Your task to perform on an android device: Go to notification settings Image 0: 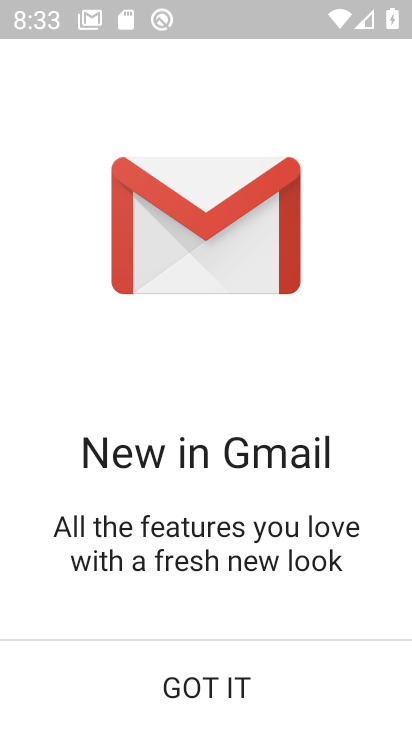
Step 0: press back button
Your task to perform on an android device: Go to notification settings Image 1: 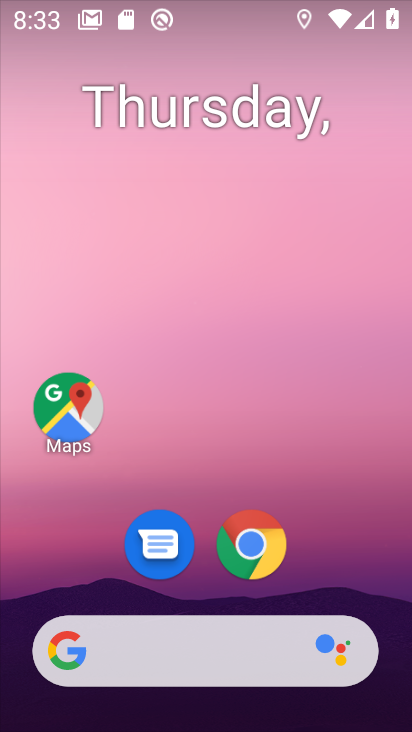
Step 1: drag from (334, 560) to (6, 272)
Your task to perform on an android device: Go to notification settings Image 2: 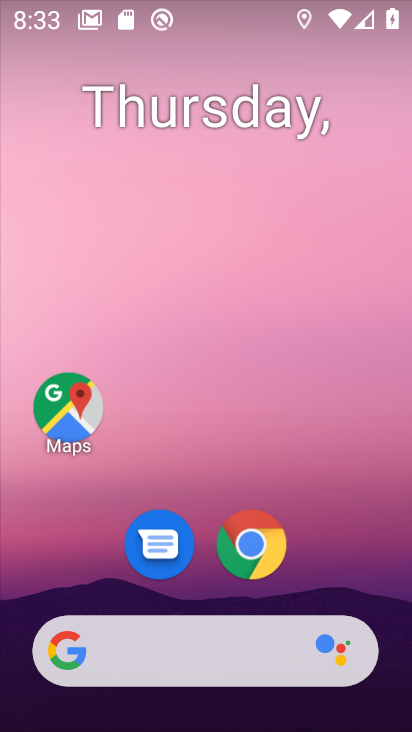
Step 2: drag from (6, 601) to (8, 102)
Your task to perform on an android device: Go to notification settings Image 3: 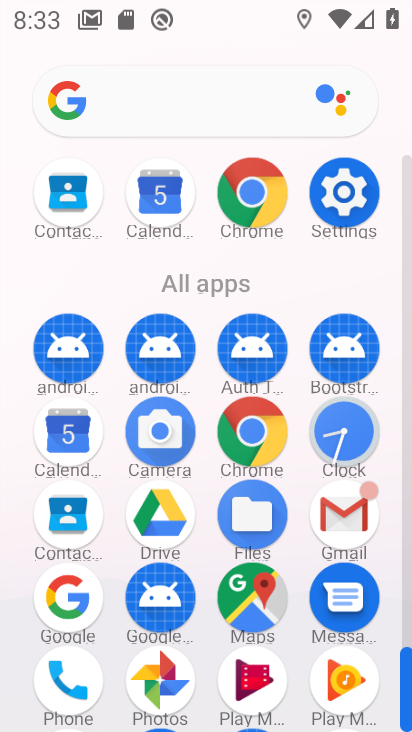
Step 3: drag from (12, 624) to (18, 335)
Your task to perform on an android device: Go to notification settings Image 4: 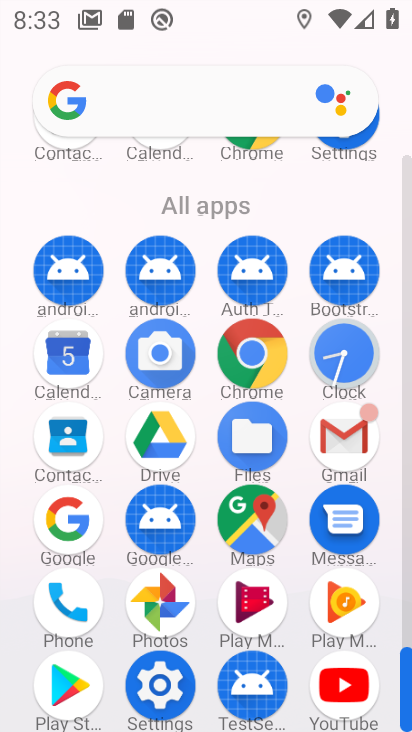
Step 4: click (161, 681)
Your task to perform on an android device: Go to notification settings Image 5: 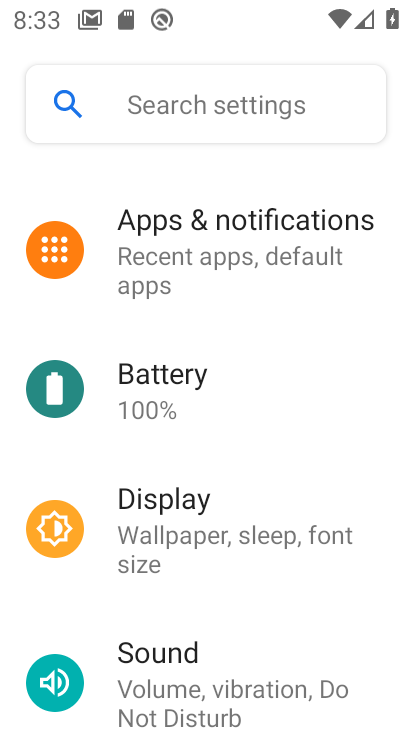
Step 5: click (228, 257)
Your task to perform on an android device: Go to notification settings Image 6: 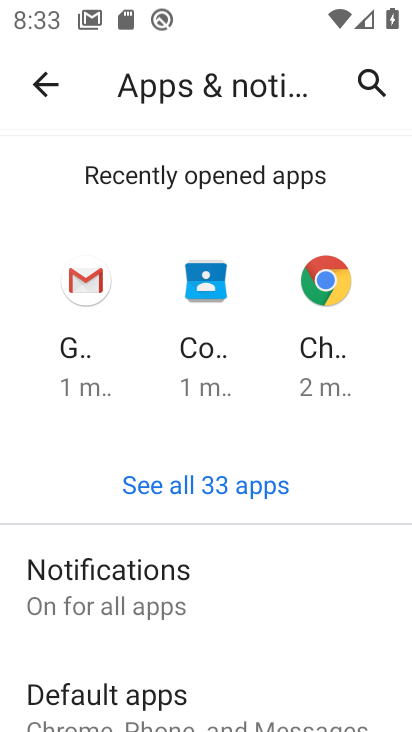
Step 6: click (180, 593)
Your task to perform on an android device: Go to notification settings Image 7: 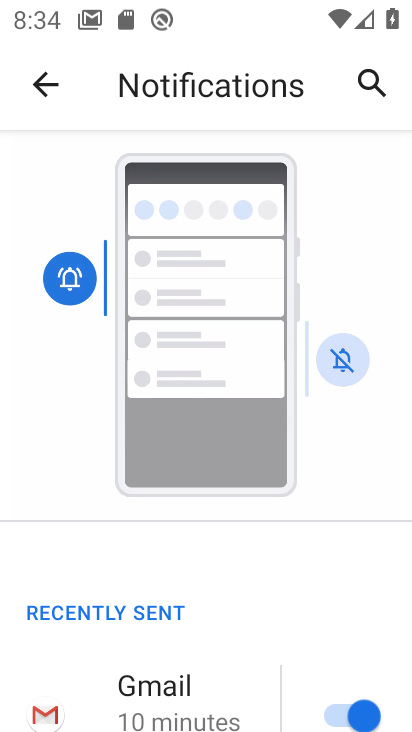
Step 7: drag from (123, 572) to (144, 228)
Your task to perform on an android device: Go to notification settings Image 8: 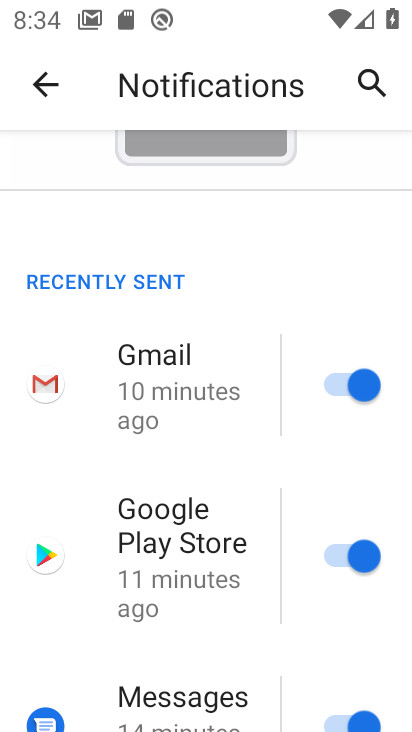
Step 8: drag from (90, 611) to (100, 166)
Your task to perform on an android device: Go to notification settings Image 9: 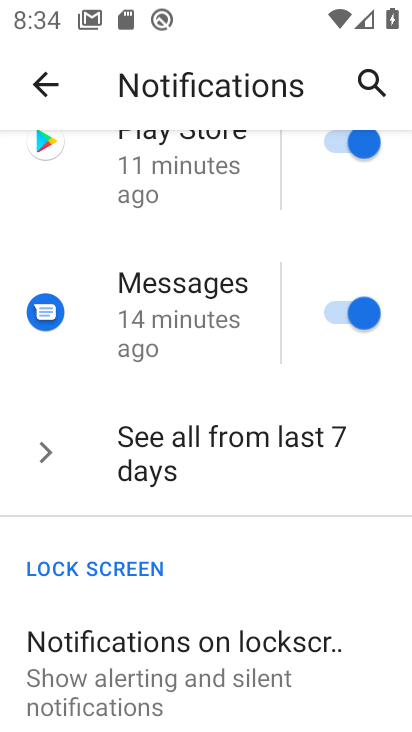
Step 9: drag from (167, 624) to (187, 200)
Your task to perform on an android device: Go to notification settings Image 10: 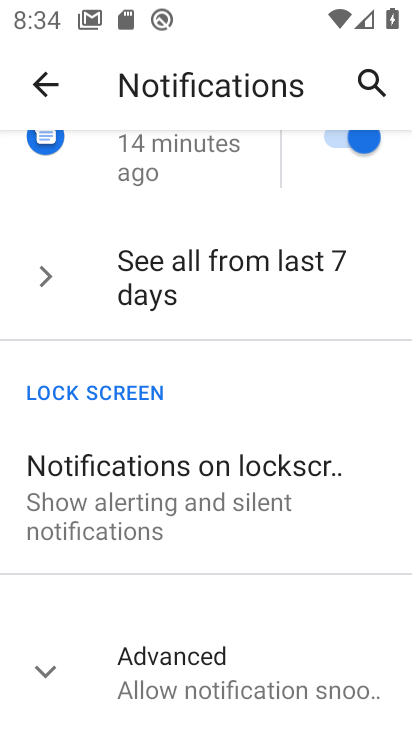
Step 10: click (75, 666)
Your task to perform on an android device: Go to notification settings Image 11: 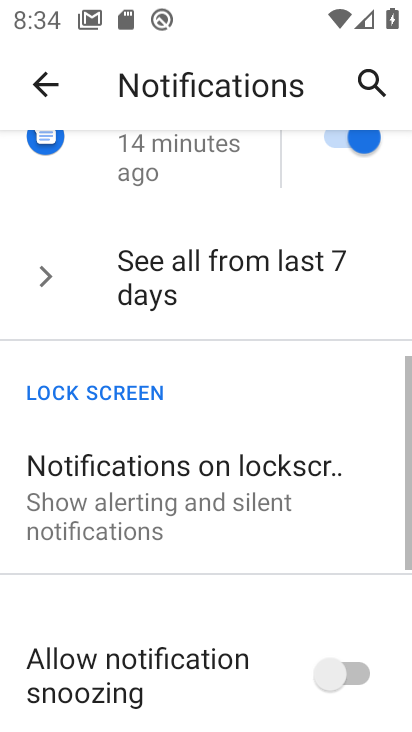
Step 11: task complete